Your task to perform on an android device: Go to Amazon Image 0: 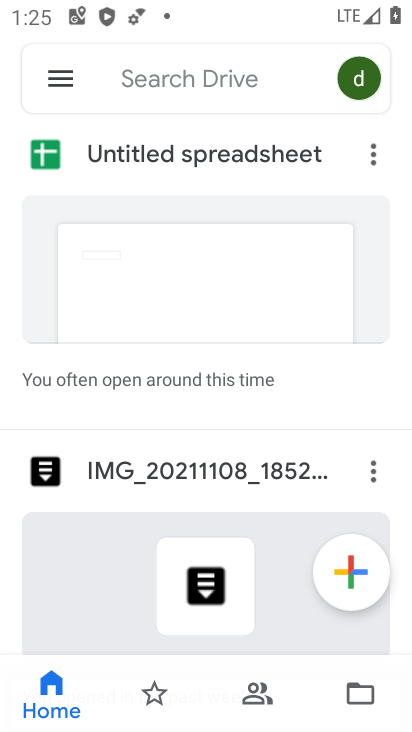
Step 0: press back button
Your task to perform on an android device: Go to Amazon Image 1: 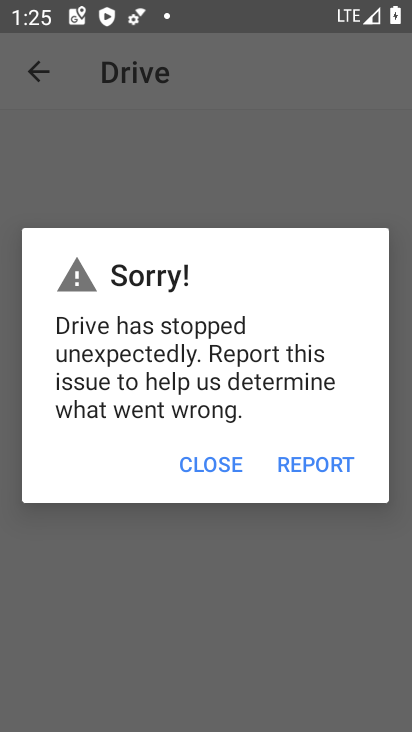
Step 1: press home button
Your task to perform on an android device: Go to Amazon Image 2: 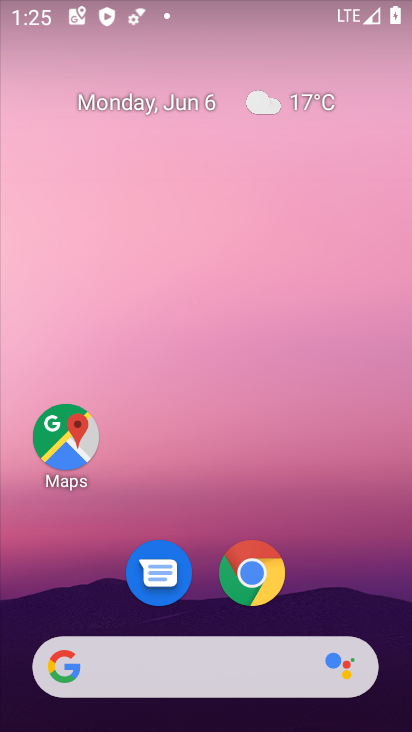
Step 2: drag from (335, 585) to (335, 235)
Your task to perform on an android device: Go to Amazon Image 3: 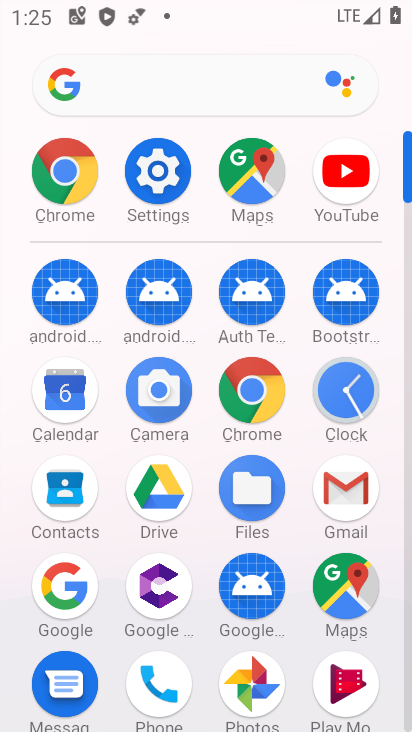
Step 3: click (263, 375)
Your task to perform on an android device: Go to Amazon Image 4: 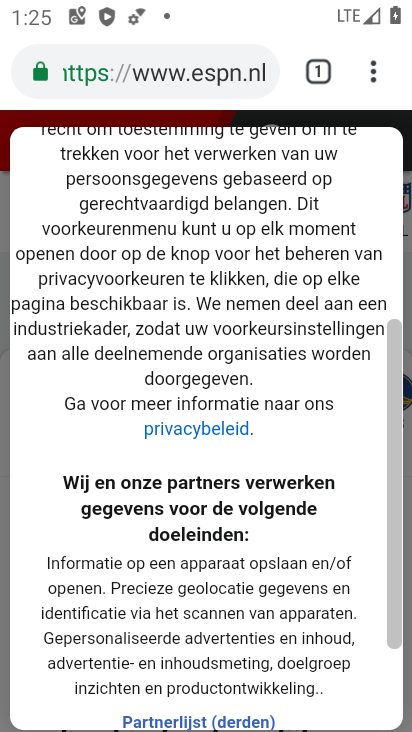
Step 4: click (233, 67)
Your task to perform on an android device: Go to Amazon Image 5: 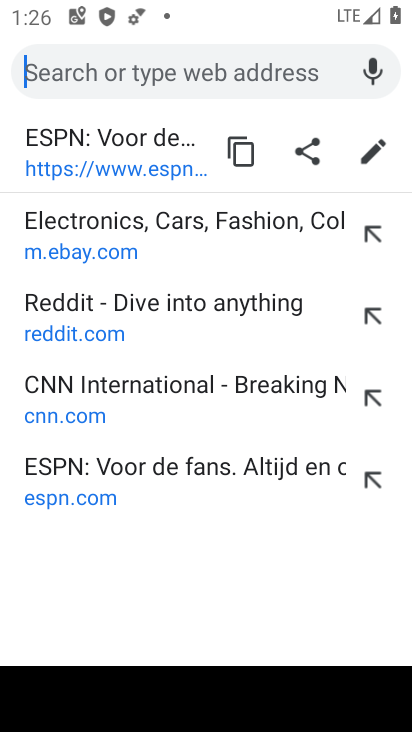
Step 5: type "amazon"
Your task to perform on an android device: Go to Amazon Image 6: 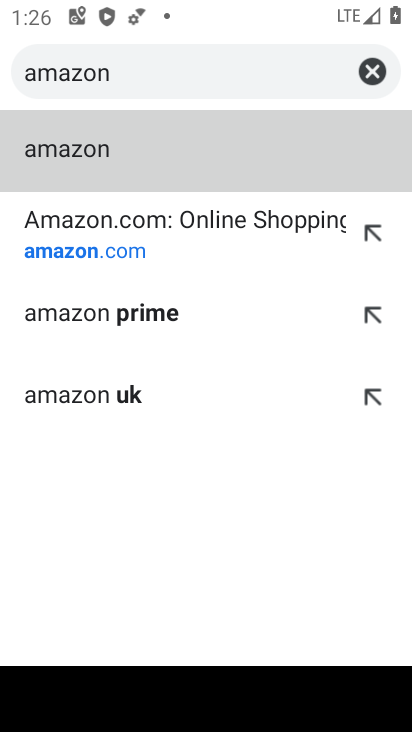
Step 6: click (227, 227)
Your task to perform on an android device: Go to Amazon Image 7: 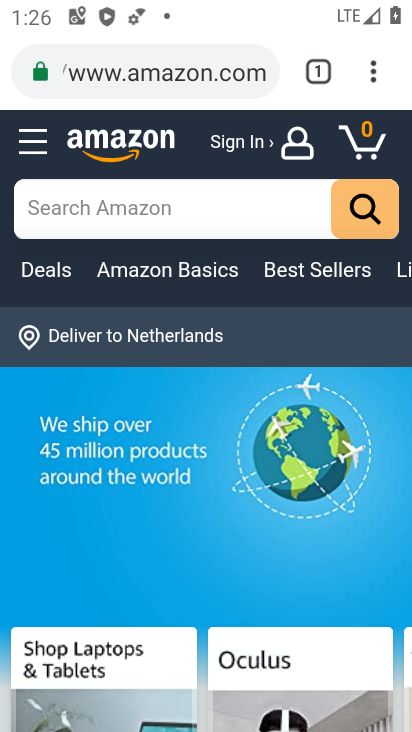
Step 7: task complete